Your task to perform on an android device: show emergency info Image 0: 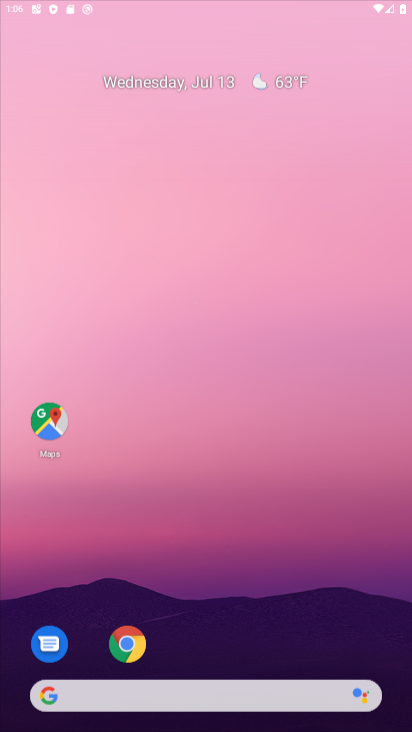
Step 0: click (136, 644)
Your task to perform on an android device: show emergency info Image 1: 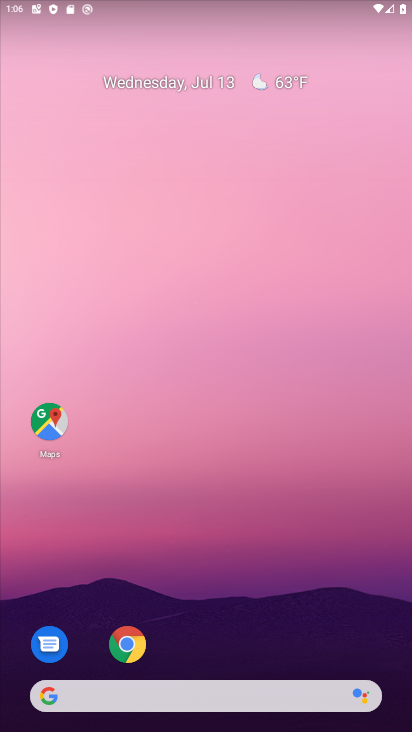
Step 1: click (139, 640)
Your task to perform on an android device: show emergency info Image 2: 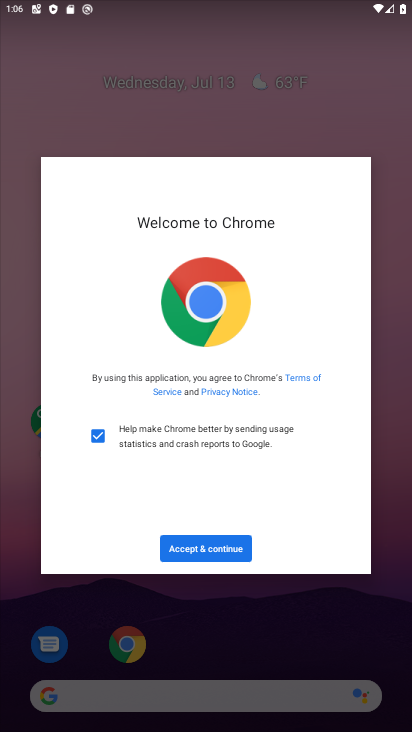
Step 2: press home button
Your task to perform on an android device: show emergency info Image 3: 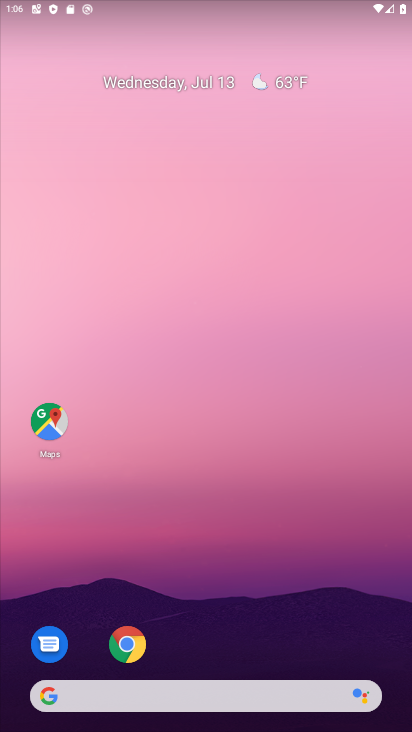
Step 3: drag from (218, 639) to (335, 113)
Your task to perform on an android device: show emergency info Image 4: 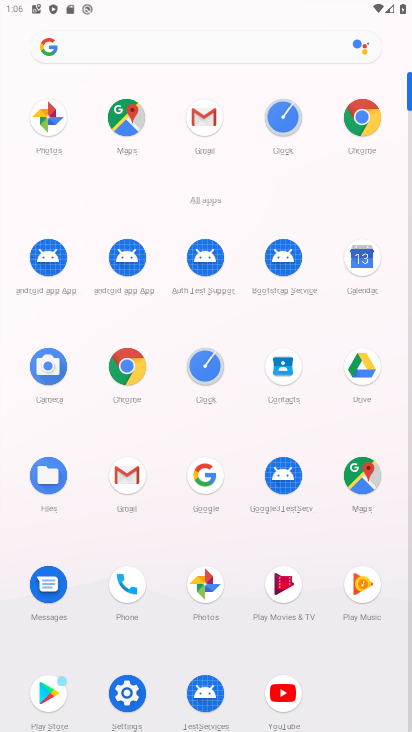
Step 4: click (128, 697)
Your task to perform on an android device: show emergency info Image 5: 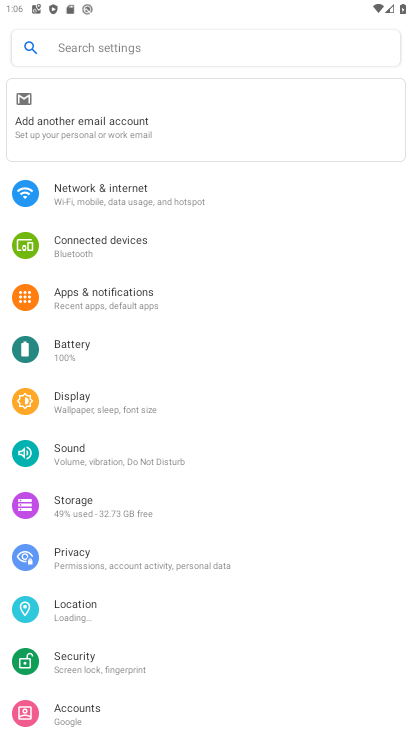
Step 5: drag from (204, 667) to (315, 115)
Your task to perform on an android device: show emergency info Image 6: 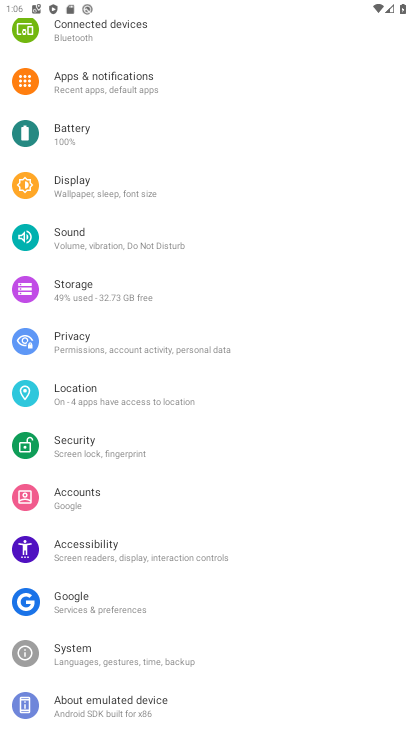
Step 6: drag from (145, 602) to (262, 119)
Your task to perform on an android device: show emergency info Image 7: 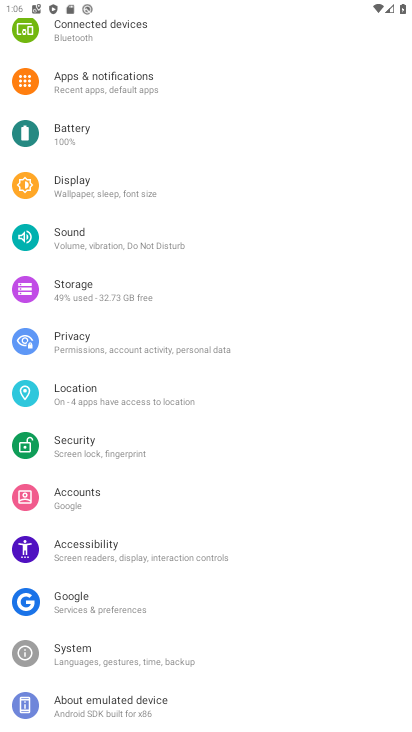
Step 7: click (160, 704)
Your task to perform on an android device: show emergency info Image 8: 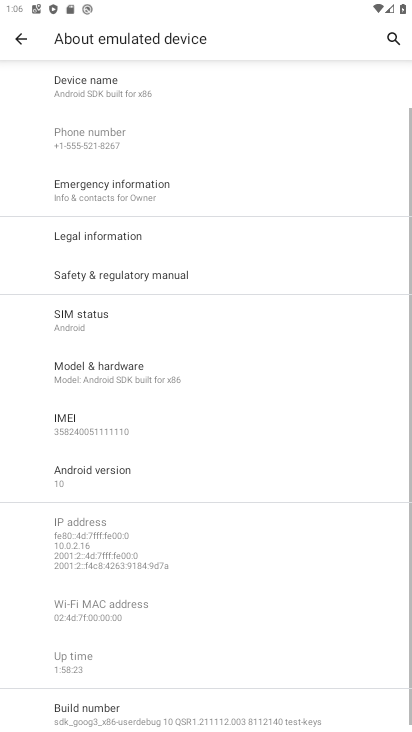
Step 8: click (183, 187)
Your task to perform on an android device: show emergency info Image 9: 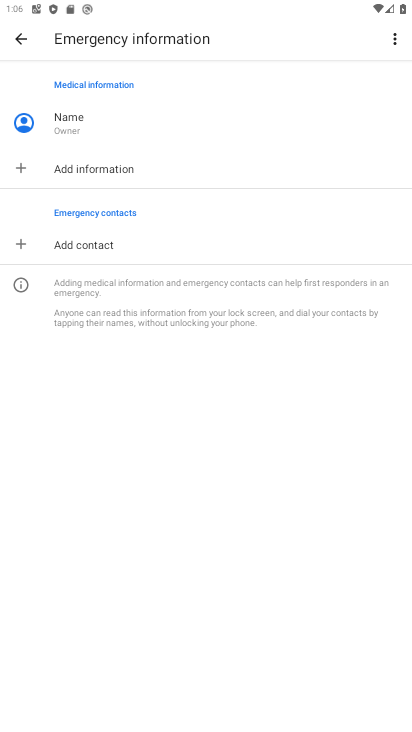
Step 9: task complete